Your task to perform on an android device: see creations saved in the google photos Image 0: 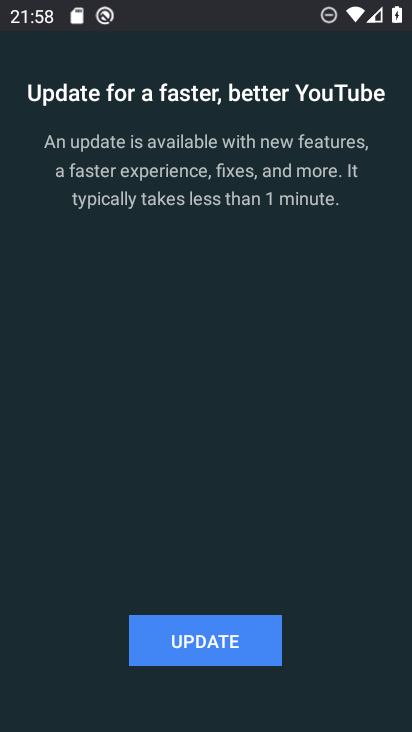
Step 0: press home button
Your task to perform on an android device: see creations saved in the google photos Image 1: 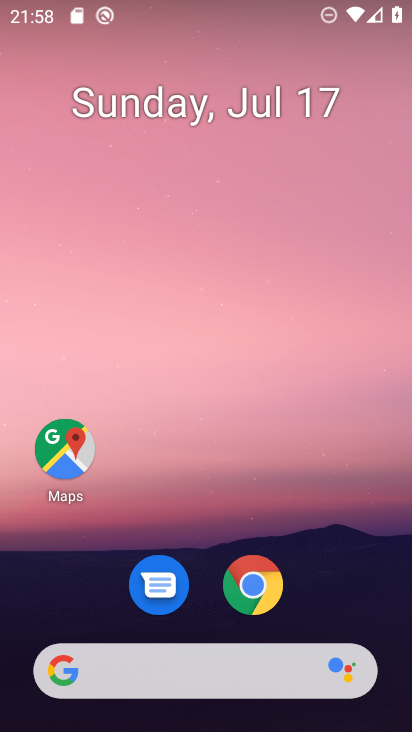
Step 1: drag from (201, 585) to (317, 90)
Your task to perform on an android device: see creations saved in the google photos Image 2: 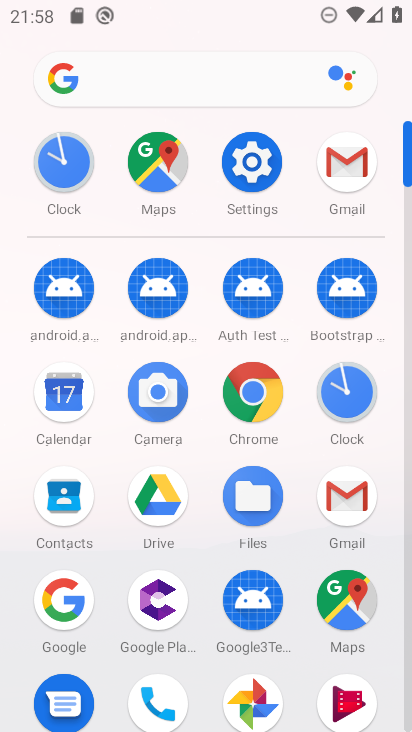
Step 2: drag from (202, 621) to (305, 240)
Your task to perform on an android device: see creations saved in the google photos Image 3: 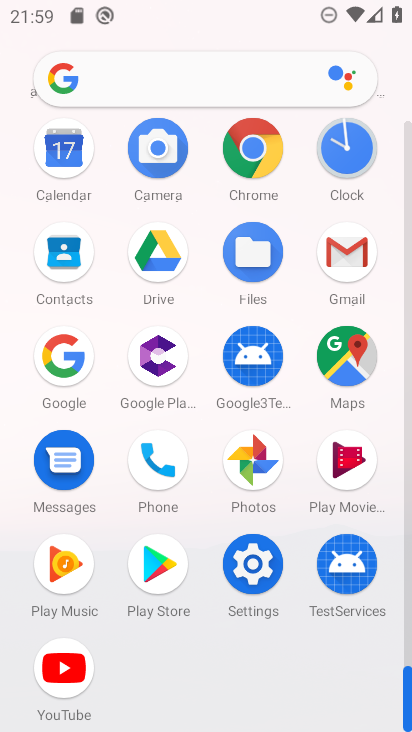
Step 3: click (251, 466)
Your task to perform on an android device: see creations saved in the google photos Image 4: 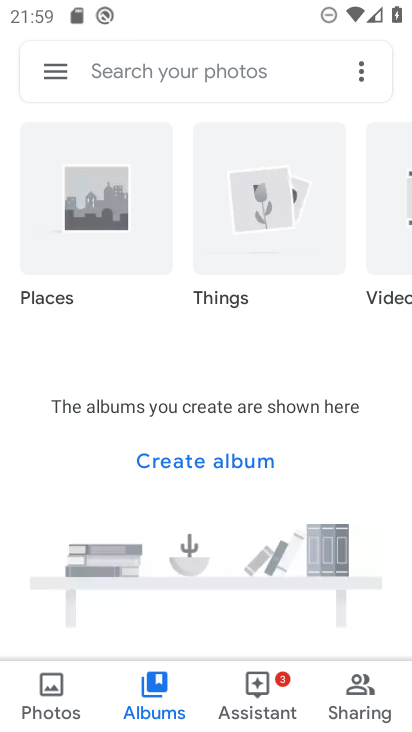
Step 4: click (176, 69)
Your task to perform on an android device: see creations saved in the google photos Image 5: 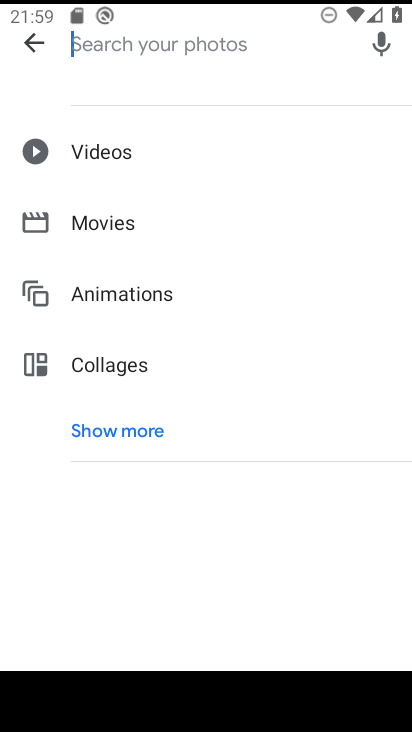
Step 5: click (109, 431)
Your task to perform on an android device: see creations saved in the google photos Image 6: 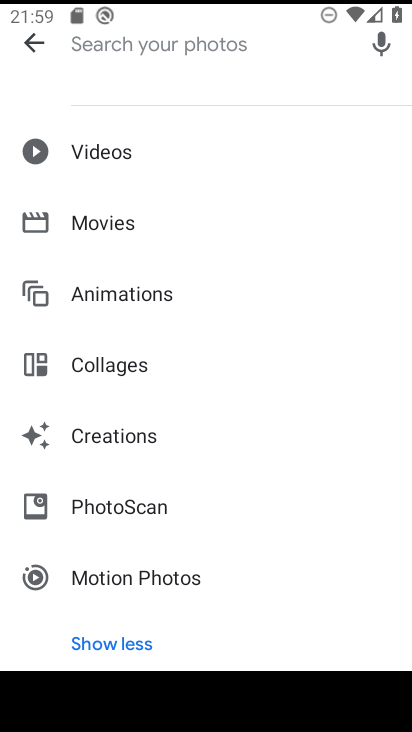
Step 6: click (138, 437)
Your task to perform on an android device: see creations saved in the google photos Image 7: 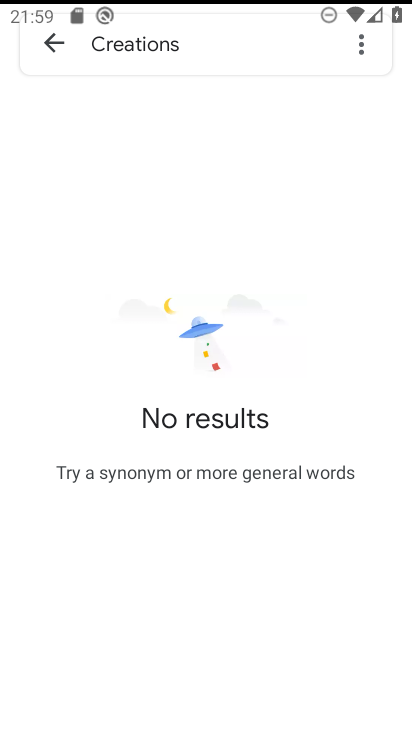
Step 7: task complete